Your task to perform on an android device: Go to Wikipedia Image 0: 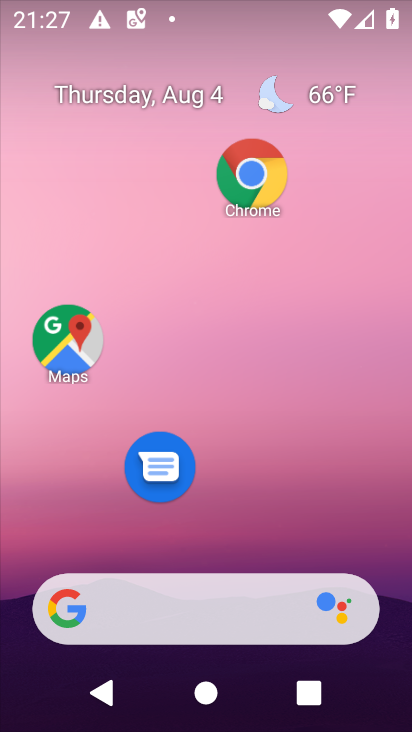
Step 0: drag from (236, 514) to (250, 15)
Your task to perform on an android device: Go to Wikipedia Image 1: 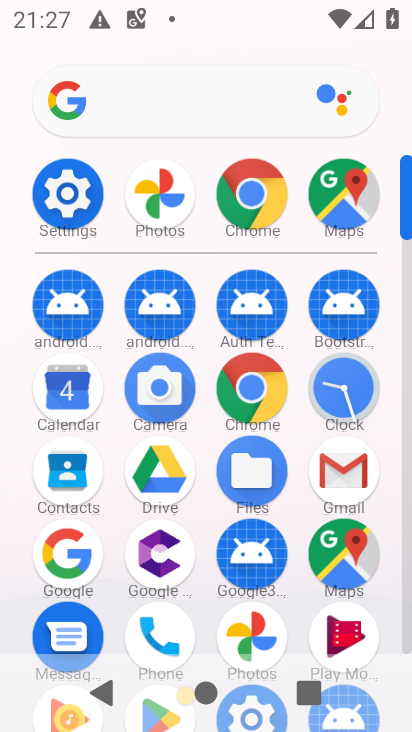
Step 1: click (258, 382)
Your task to perform on an android device: Go to Wikipedia Image 2: 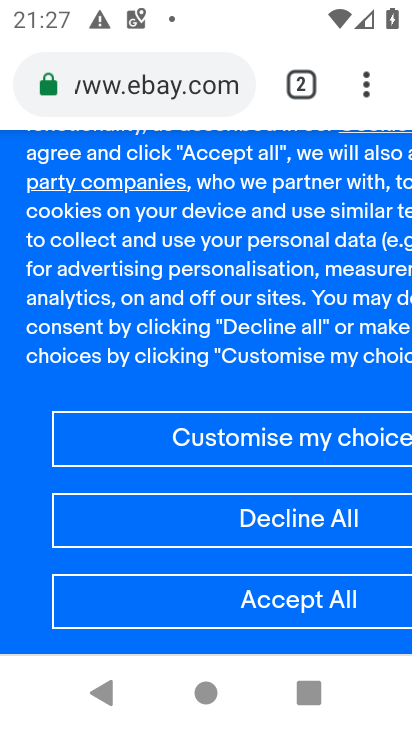
Step 2: click (146, 81)
Your task to perform on an android device: Go to Wikipedia Image 3: 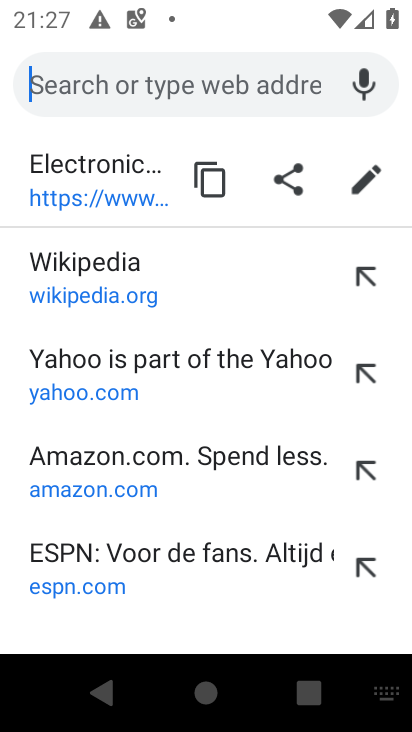
Step 3: type "Wikipedia"
Your task to perform on an android device: Go to Wikipedia Image 4: 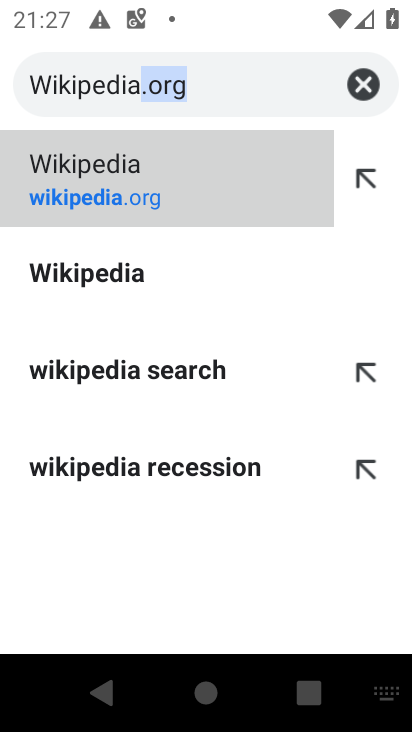
Step 4: click (94, 198)
Your task to perform on an android device: Go to Wikipedia Image 5: 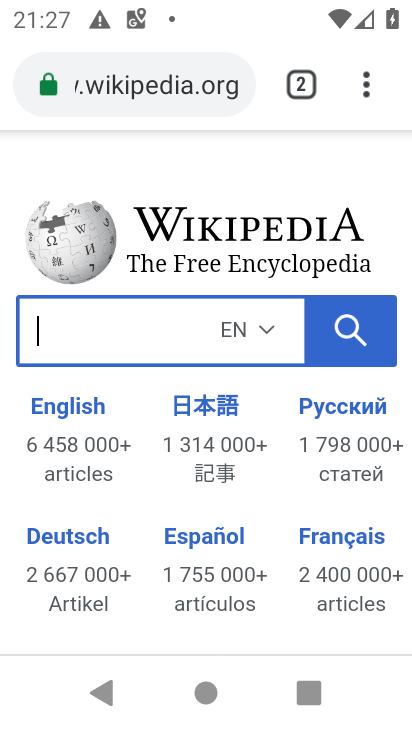
Step 5: task complete